Your task to perform on an android device: move a message to another label in the gmail app Image 0: 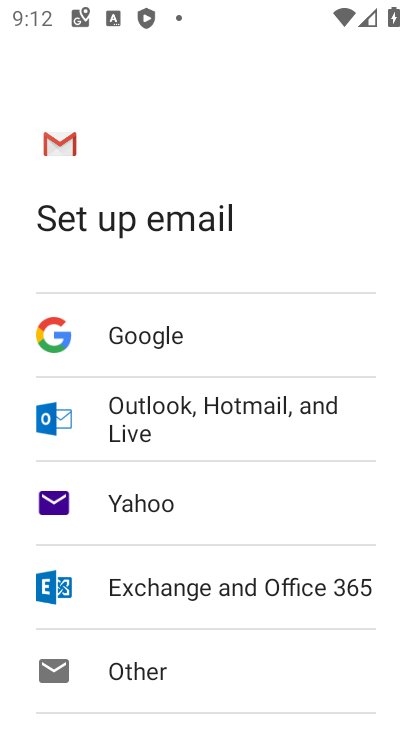
Step 0: press home button
Your task to perform on an android device: move a message to another label in the gmail app Image 1: 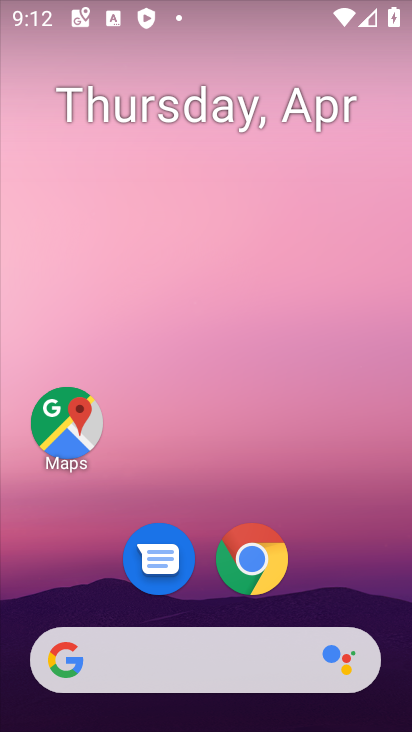
Step 1: drag from (234, 694) to (293, 99)
Your task to perform on an android device: move a message to another label in the gmail app Image 2: 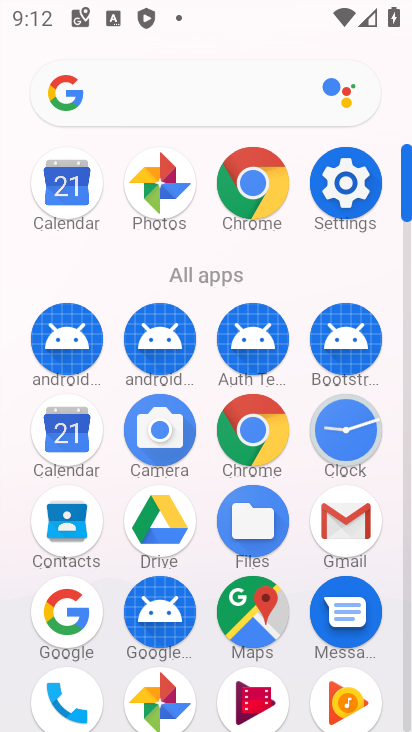
Step 2: click (327, 515)
Your task to perform on an android device: move a message to another label in the gmail app Image 3: 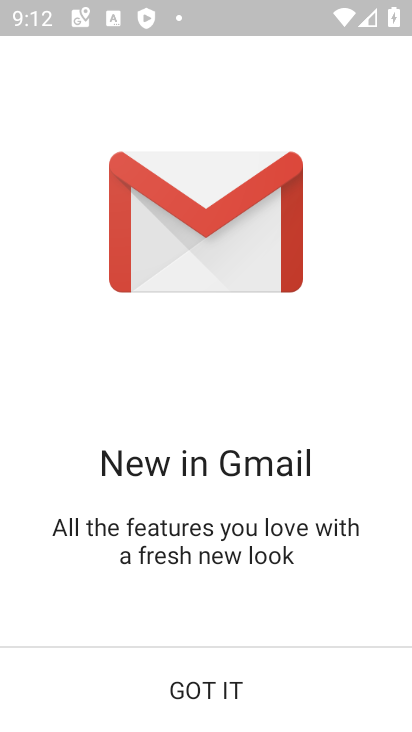
Step 3: click (179, 699)
Your task to perform on an android device: move a message to another label in the gmail app Image 4: 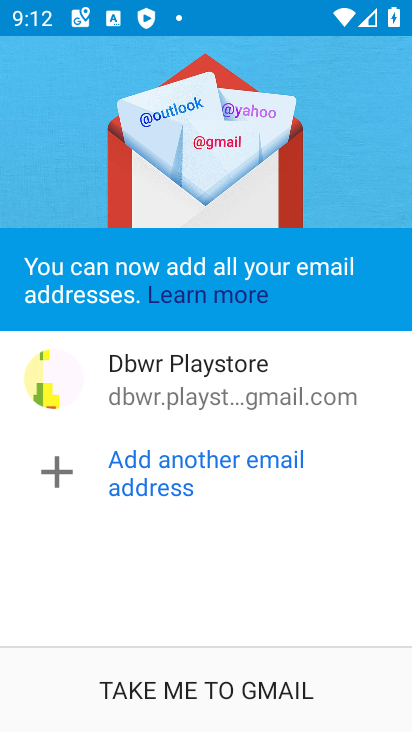
Step 4: click (179, 699)
Your task to perform on an android device: move a message to another label in the gmail app Image 5: 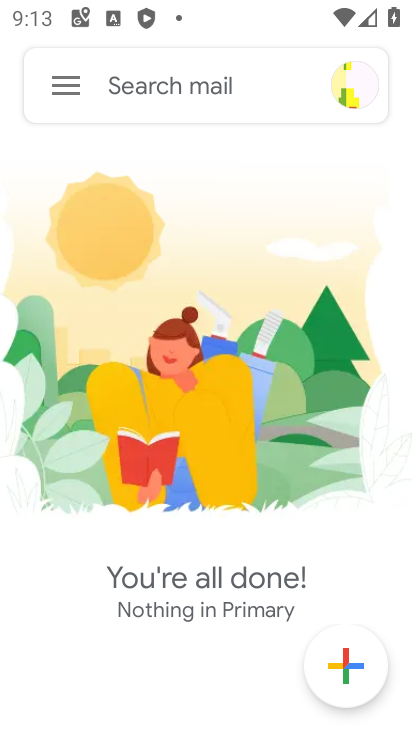
Step 5: click (60, 93)
Your task to perform on an android device: move a message to another label in the gmail app Image 6: 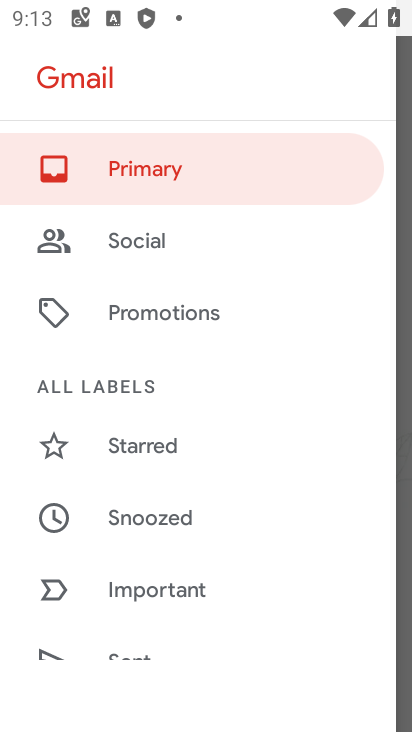
Step 6: drag from (260, 652) to (245, 30)
Your task to perform on an android device: move a message to another label in the gmail app Image 7: 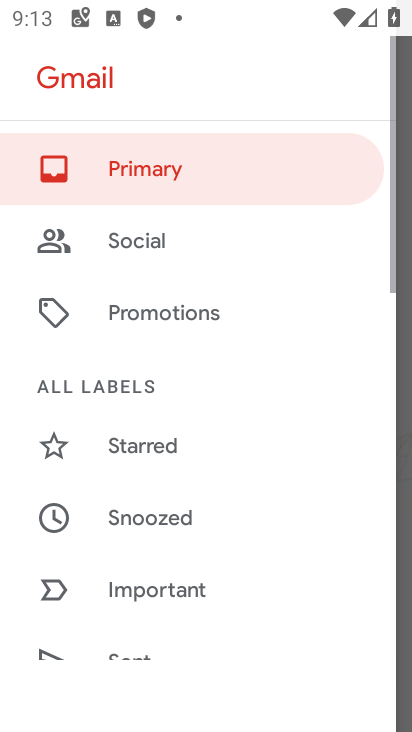
Step 7: drag from (229, 593) to (297, 31)
Your task to perform on an android device: move a message to another label in the gmail app Image 8: 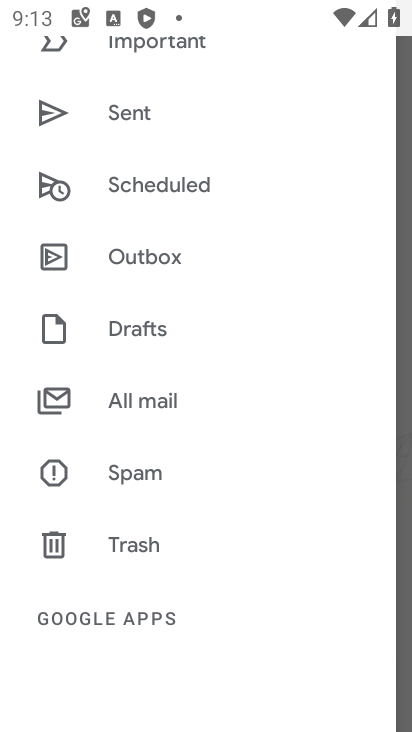
Step 8: click (119, 404)
Your task to perform on an android device: move a message to another label in the gmail app Image 9: 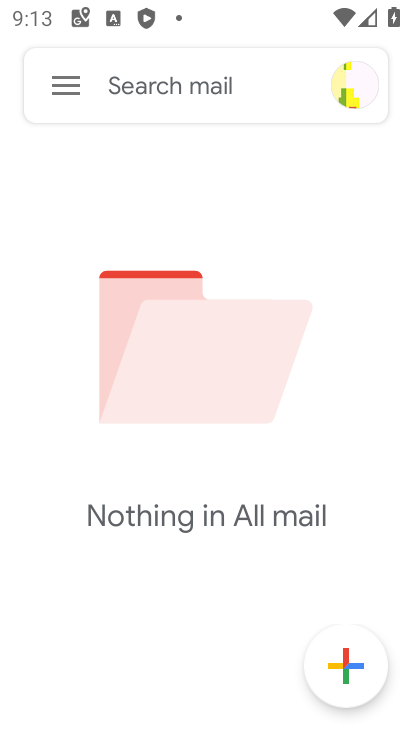
Step 9: task complete